Your task to perform on an android device: open sync settings in chrome Image 0: 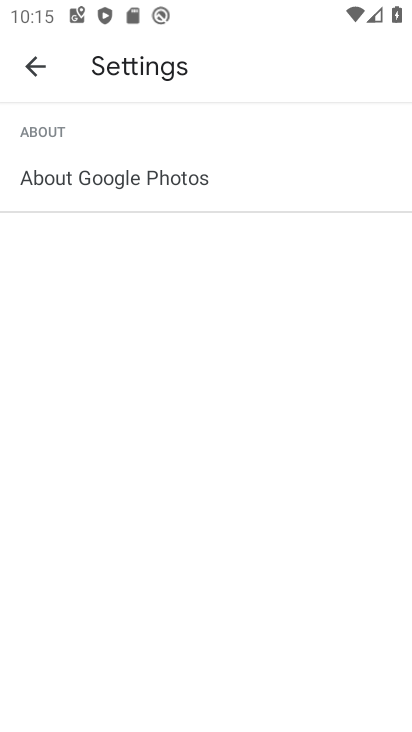
Step 0: press home button
Your task to perform on an android device: open sync settings in chrome Image 1: 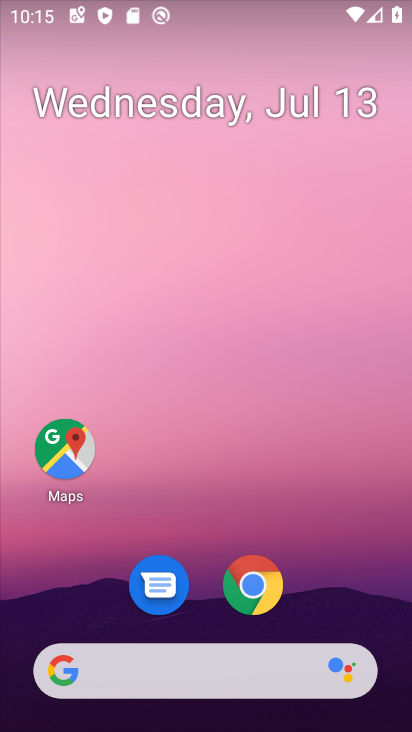
Step 1: click (258, 590)
Your task to perform on an android device: open sync settings in chrome Image 2: 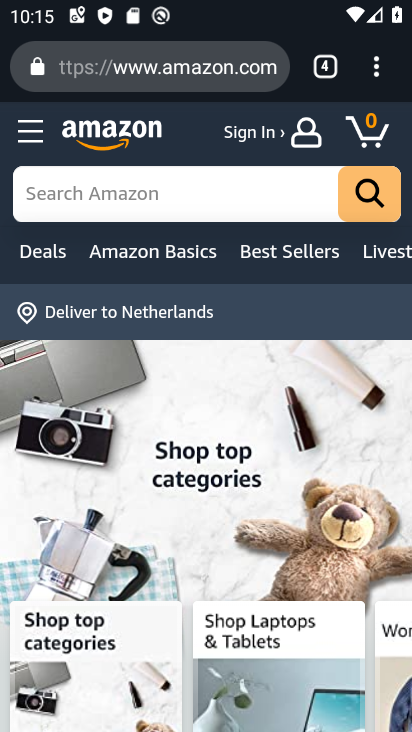
Step 2: click (381, 77)
Your task to perform on an android device: open sync settings in chrome Image 3: 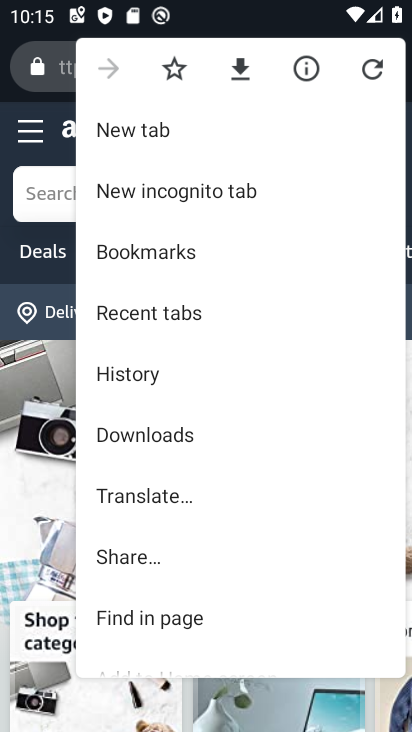
Step 3: drag from (276, 516) to (286, 195)
Your task to perform on an android device: open sync settings in chrome Image 4: 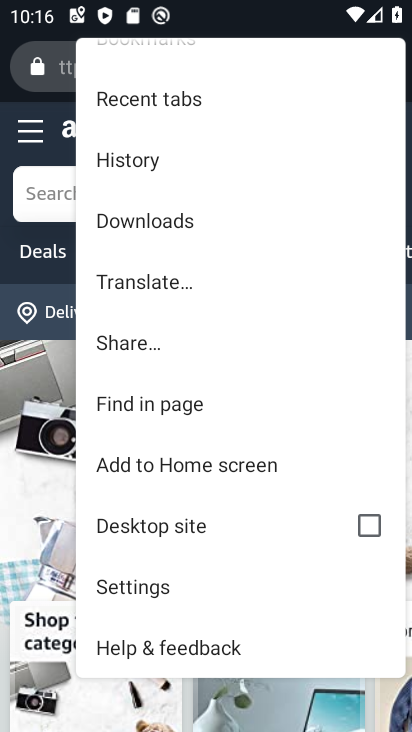
Step 4: click (148, 592)
Your task to perform on an android device: open sync settings in chrome Image 5: 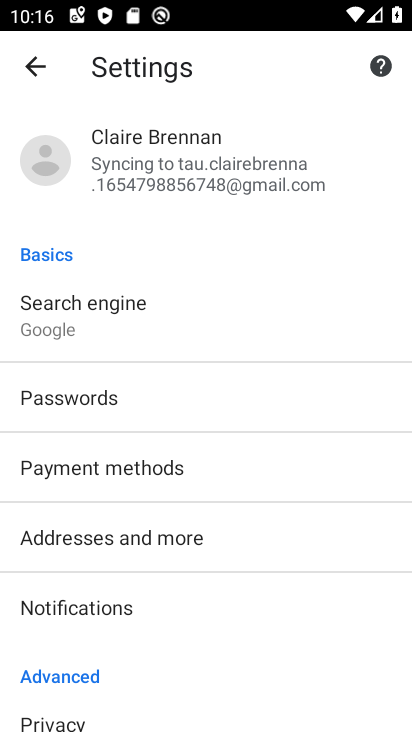
Step 5: click (209, 156)
Your task to perform on an android device: open sync settings in chrome Image 6: 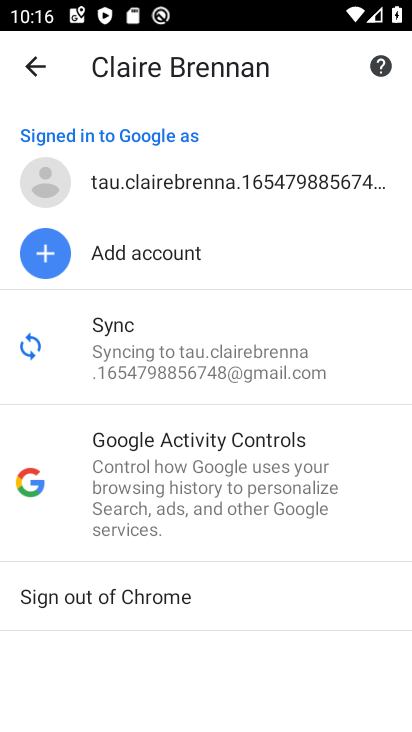
Step 6: click (208, 356)
Your task to perform on an android device: open sync settings in chrome Image 7: 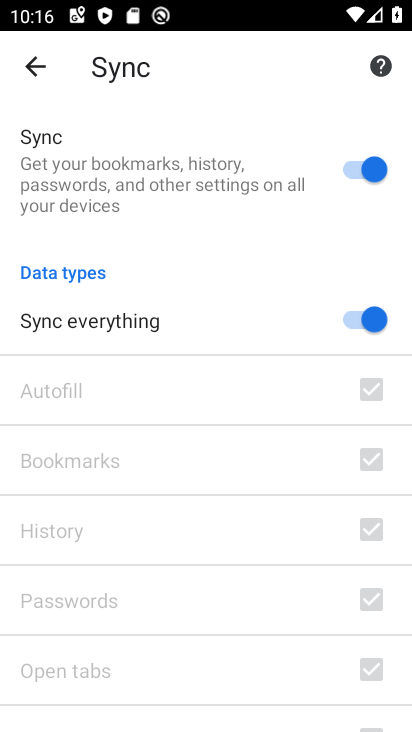
Step 7: task complete